Your task to perform on an android device: star an email in the gmail app Image 0: 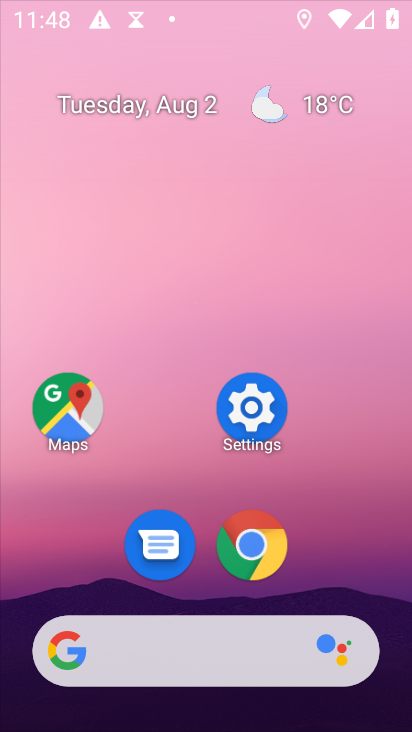
Step 0: press home button
Your task to perform on an android device: star an email in the gmail app Image 1: 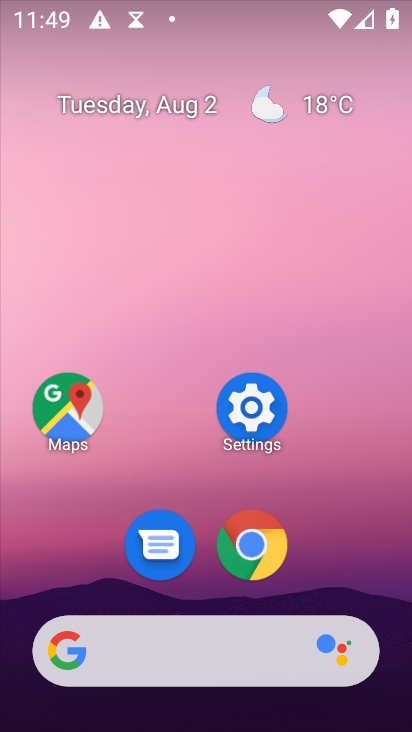
Step 1: drag from (226, 568) to (361, 83)
Your task to perform on an android device: star an email in the gmail app Image 2: 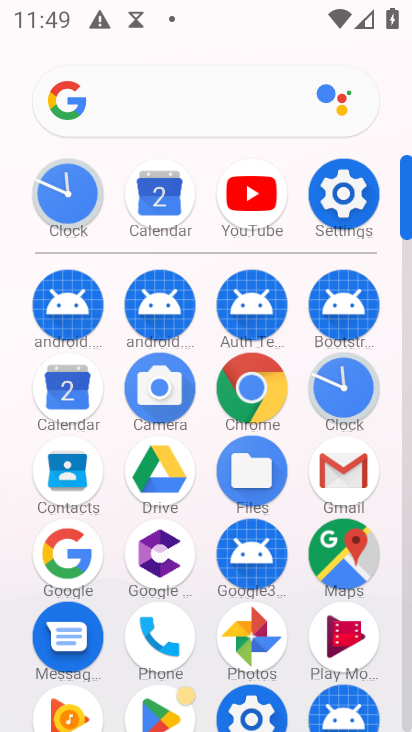
Step 2: click (354, 473)
Your task to perform on an android device: star an email in the gmail app Image 3: 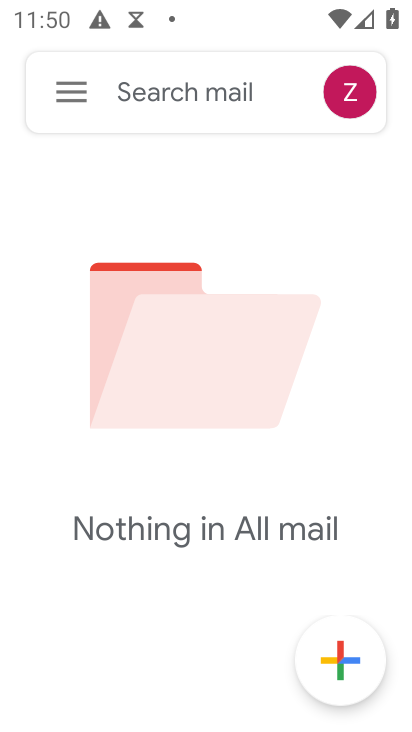
Step 3: task complete